Your task to perform on an android device: allow notifications from all sites in the chrome app Image 0: 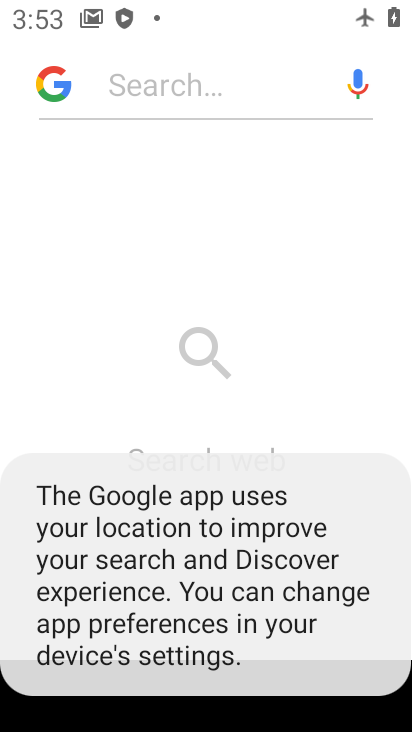
Step 0: press back button
Your task to perform on an android device: allow notifications from all sites in the chrome app Image 1: 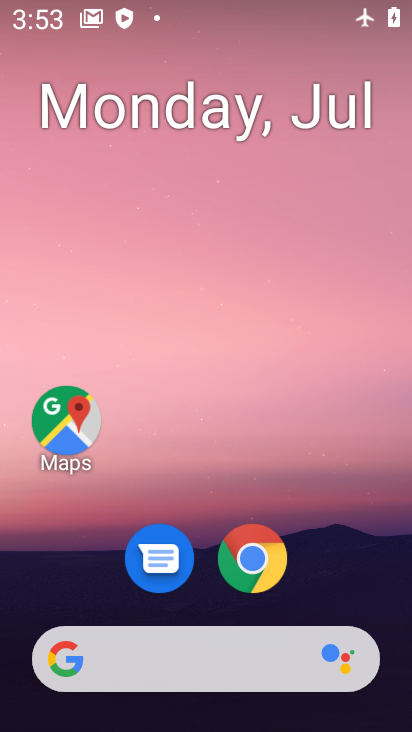
Step 1: press back button
Your task to perform on an android device: allow notifications from all sites in the chrome app Image 2: 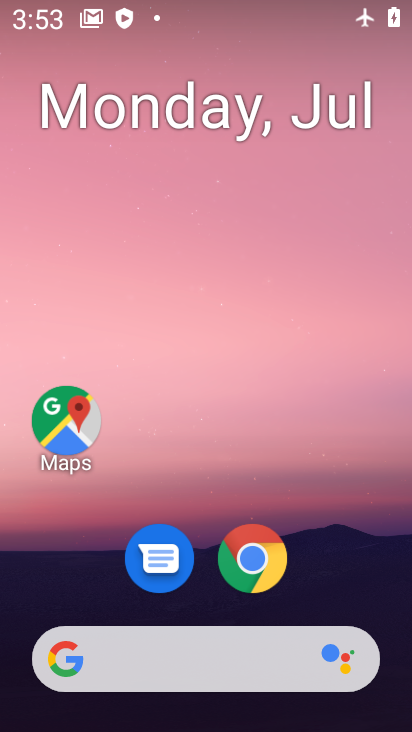
Step 2: click (263, 558)
Your task to perform on an android device: allow notifications from all sites in the chrome app Image 3: 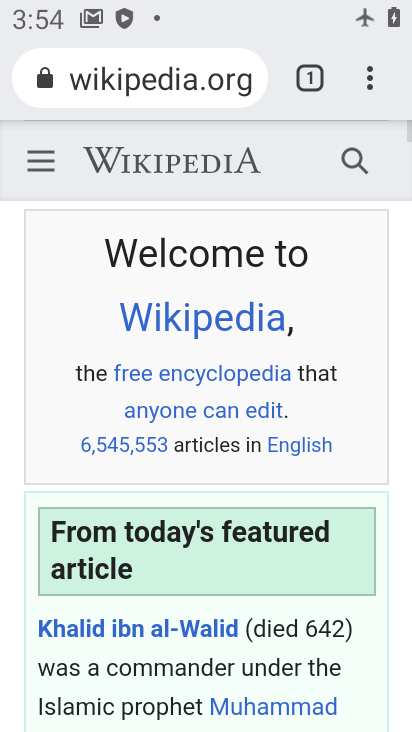
Step 3: drag from (374, 77) to (100, 609)
Your task to perform on an android device: allow notifications from all sites in the chrome app Image 4: 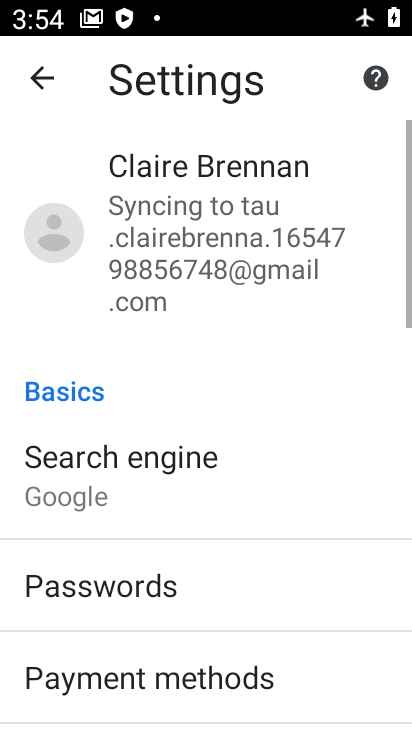
Step 4: drag from (128, 619) to (234, 121)
Your task to perform on an android device: allow notifications from all sites in the chrome app Image 5: 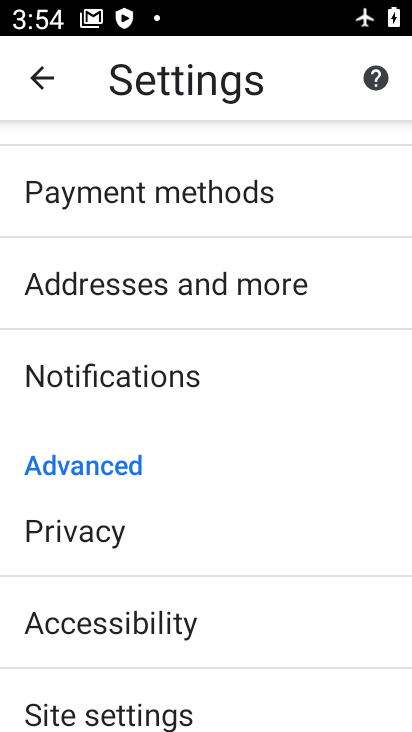
Step 5: click (102, 371)
Your task to perform on an android device: allow notifications from all sites in the chrome app Image 6: 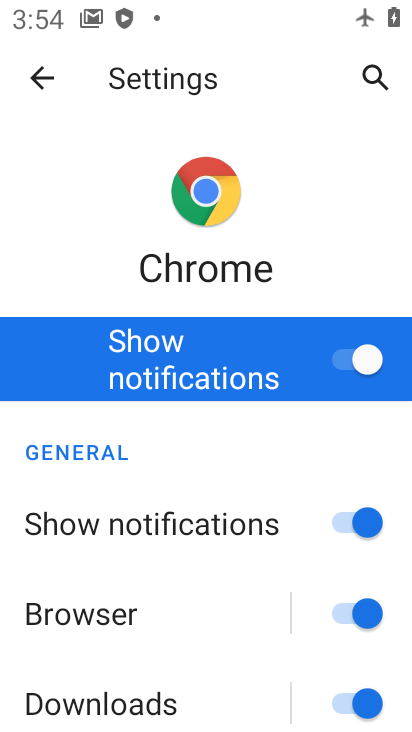
Step 6: task complete